Your task to perform on an android device: Search for bose soundlink on walmart, select the first entry, add it to the cart, then select checkout. Image 0: 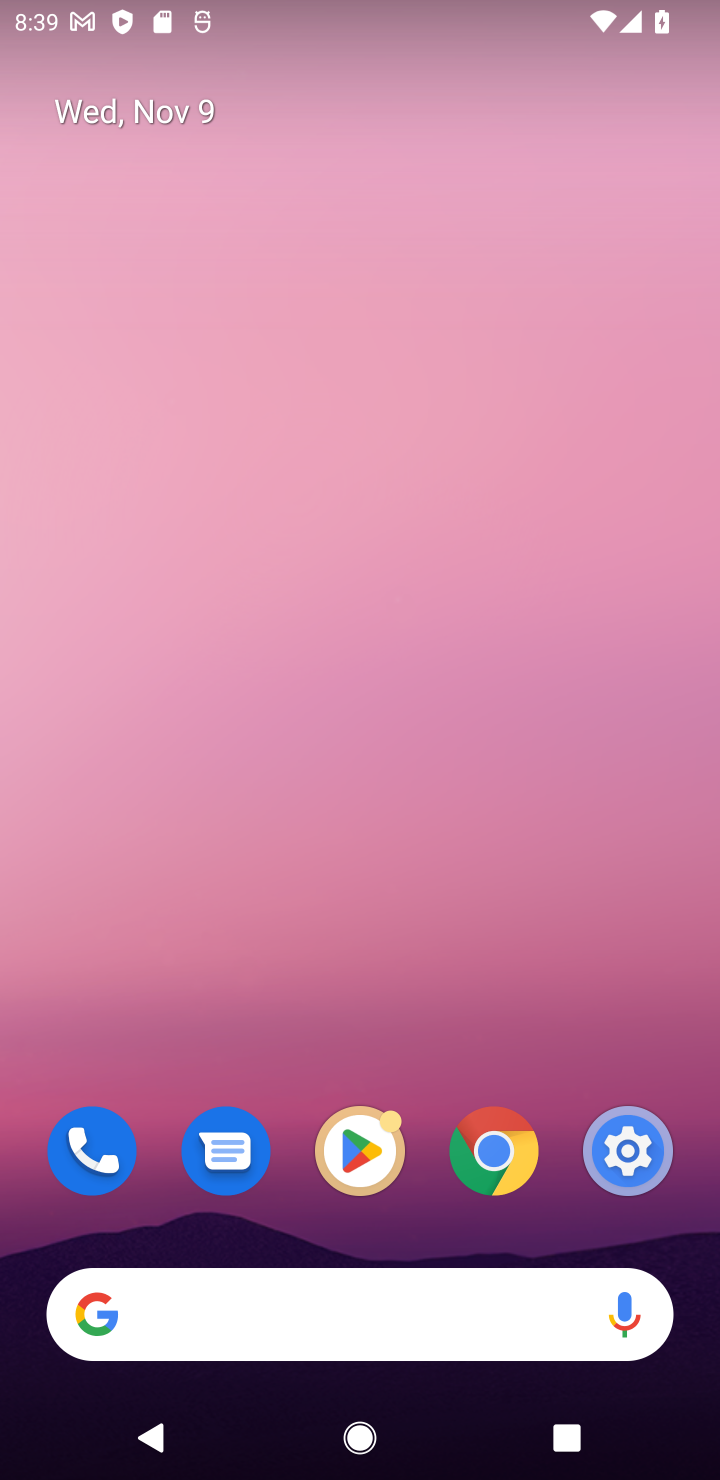
Step 0: click (493, 1146)
Your task to perform on an android device: Search for bose soundlink on walmart, select the first entry, add it to the cart, then select checkout. Image 1: 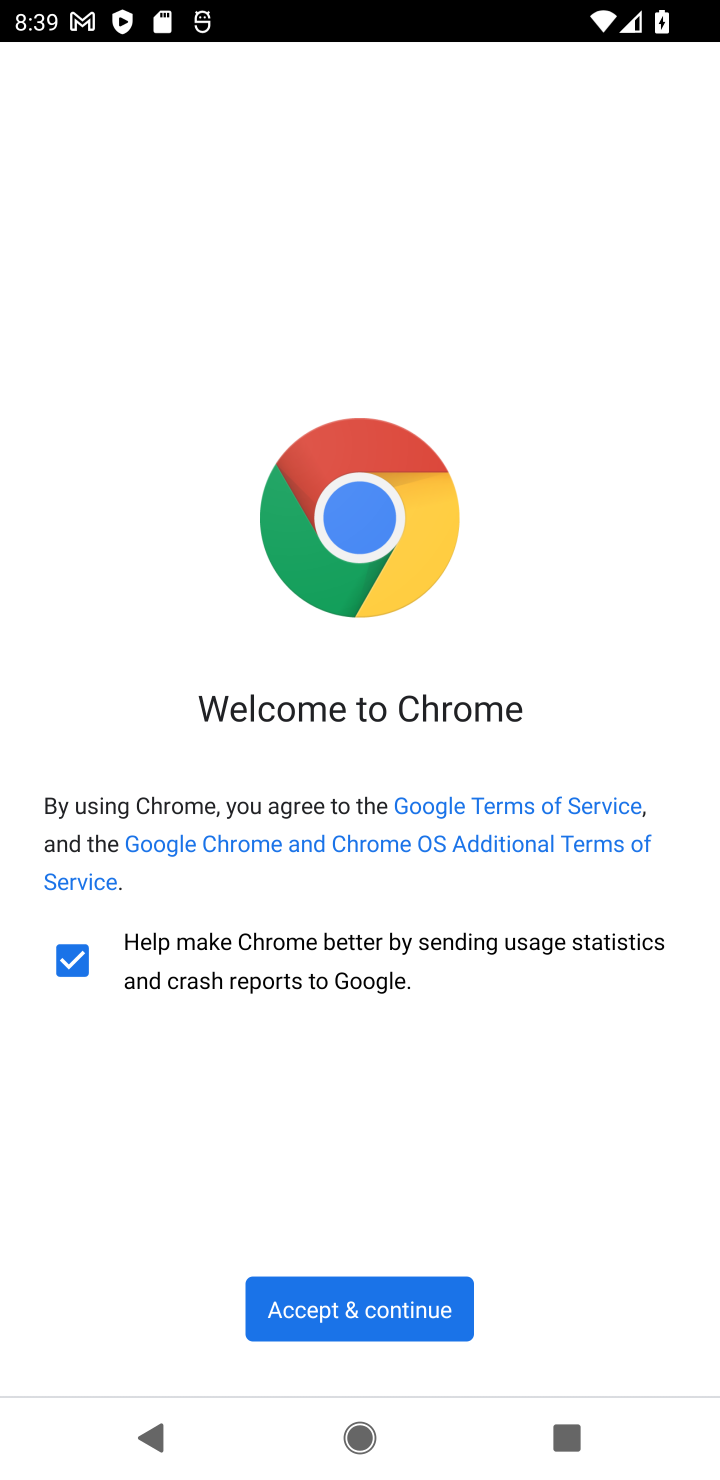
Step 1: click (397, 1328)
Your task to perform on an android device: Search for bose soundlink on walmart, select the first entry, add it to the cart, then select checkout. Image 2: 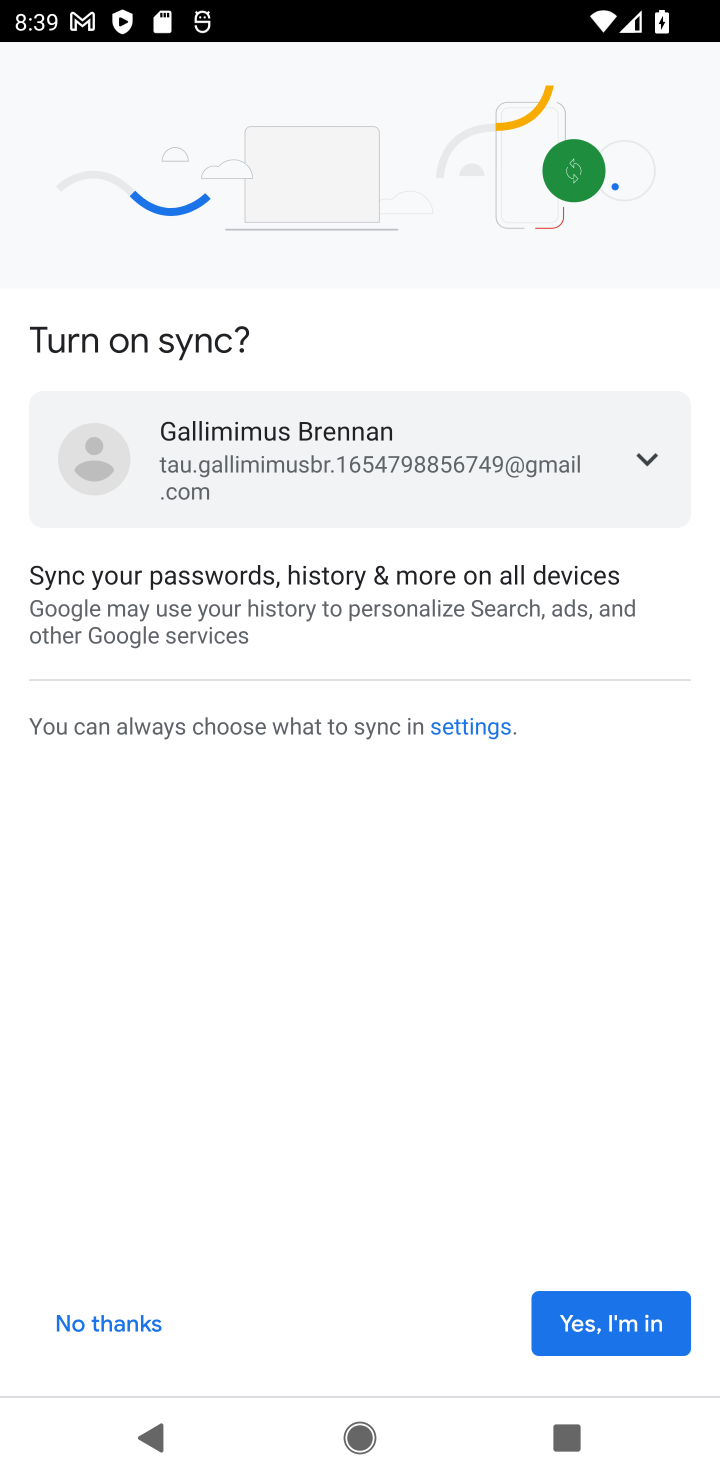
Step 2: click (113, 1329)
Your task to perform on an android device: Search for bose soundlink on walmart, select the first entry, add it to the cart, then select checkout. Image 3: 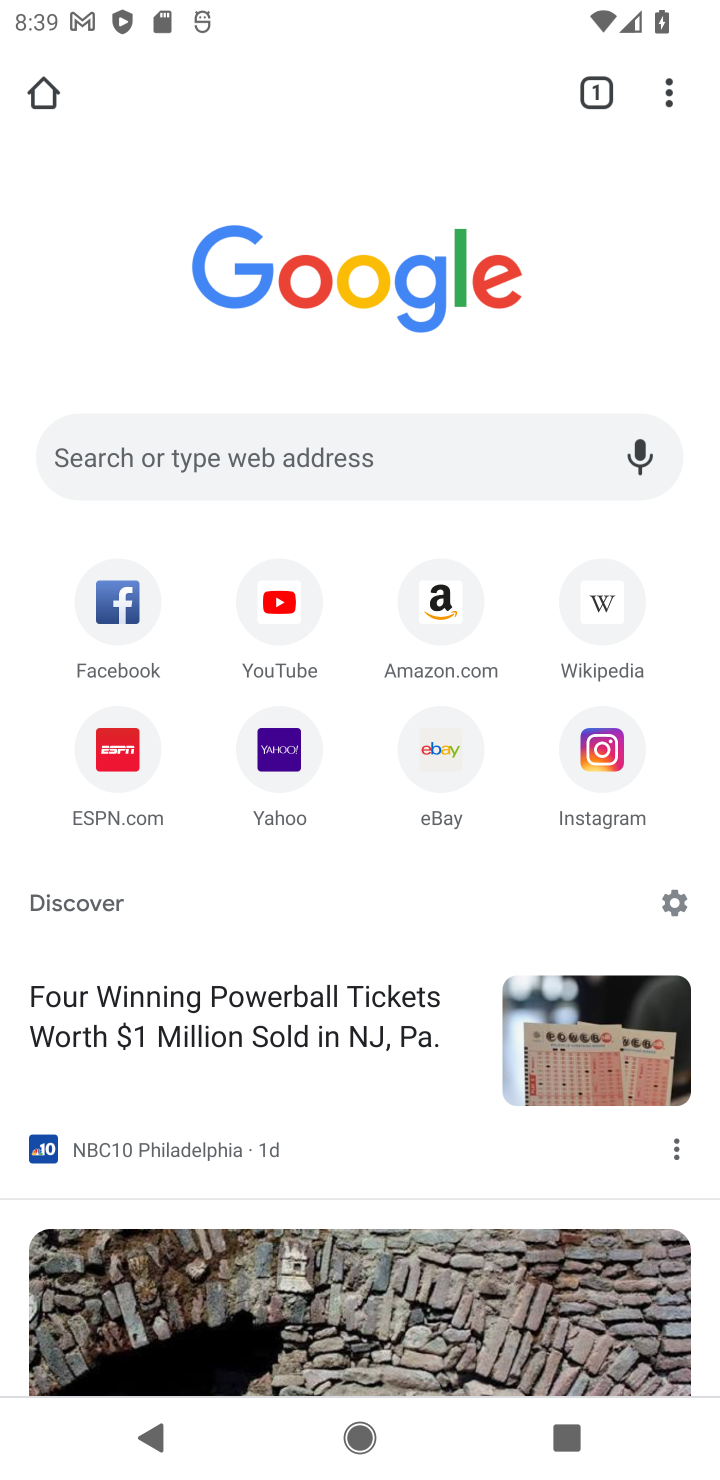
Step 3: click (331, 469)
Your task to perform on an android device: Search for bose soundlink on walmart, select the first entry, add it to the cart, then select checkout. Image 4: 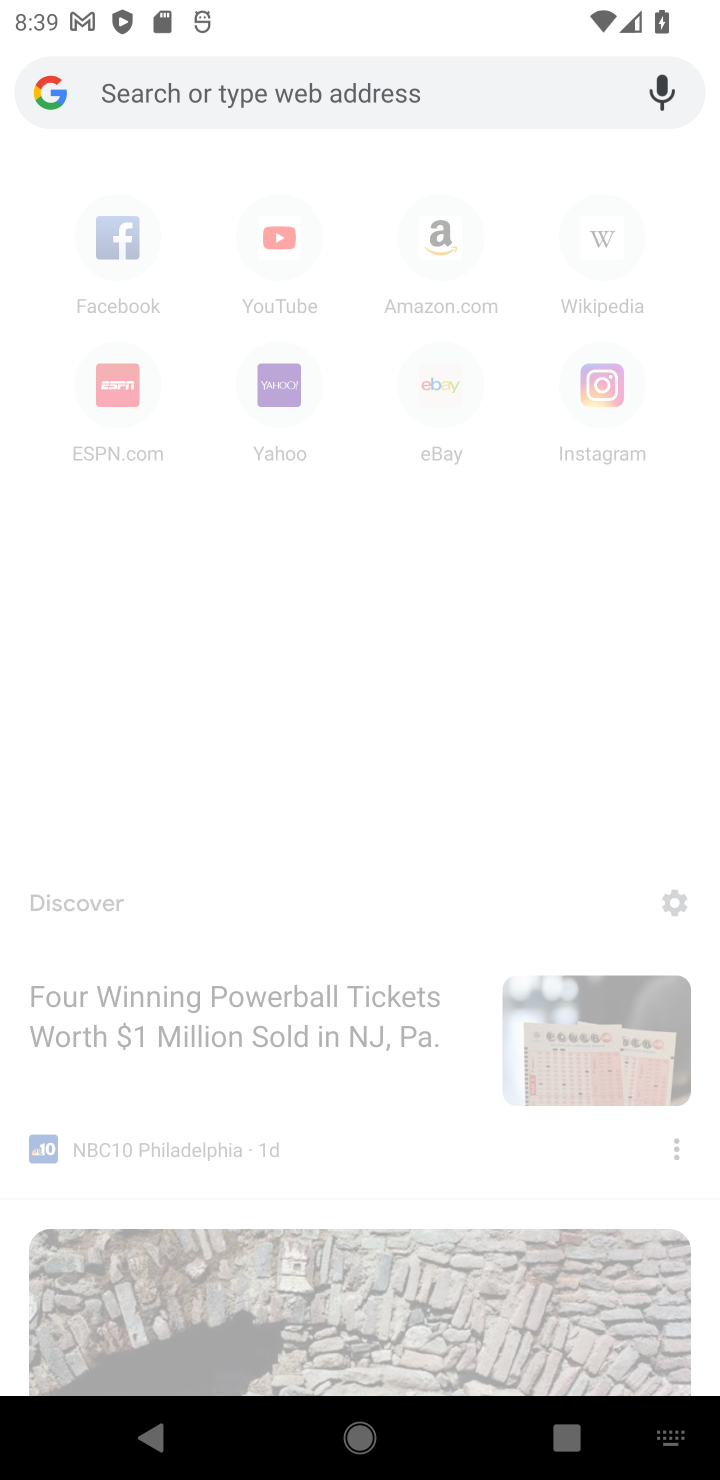
Step 4: type "walmart"
Your task to perform on an android device: Search for bose soundlink on walmart, select the first entry, add it to the cart, then select checkout. Image 5: 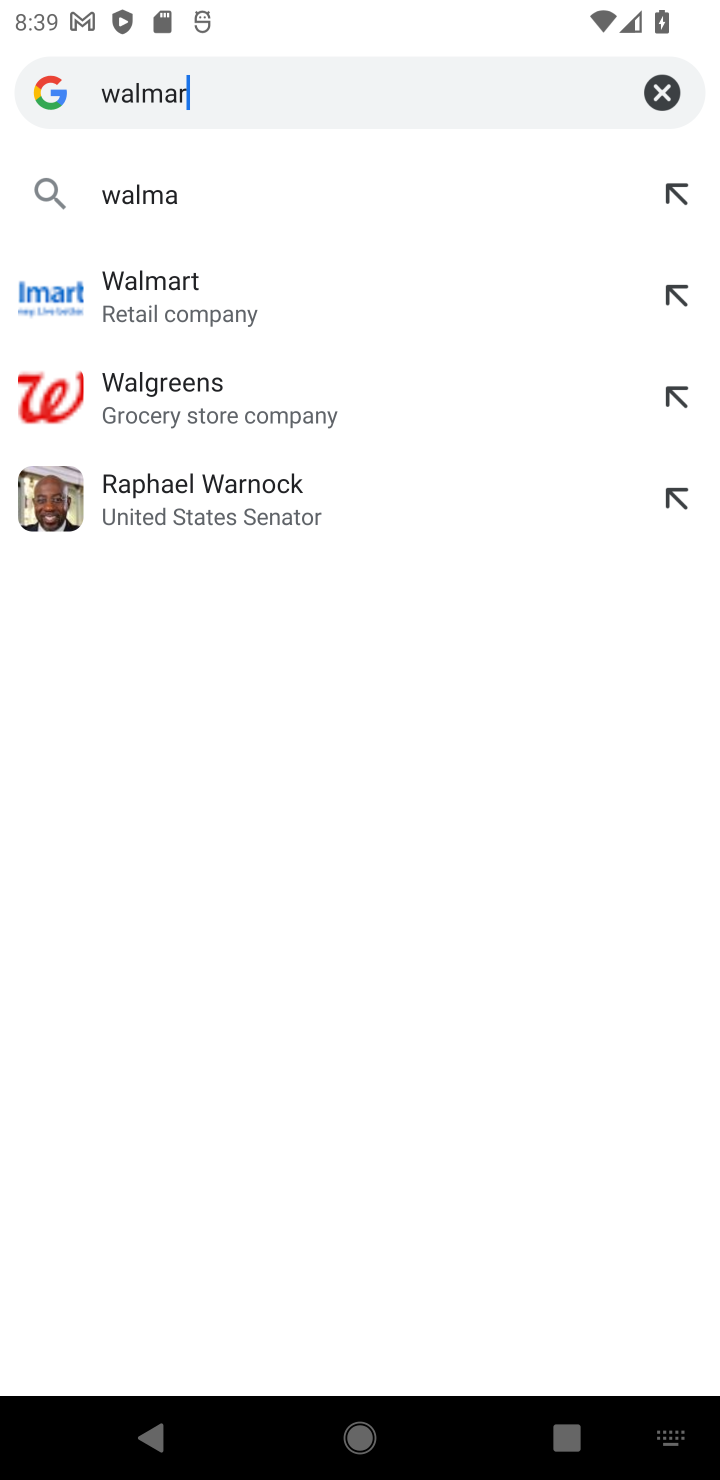
Step 5: press enter
Your task to perform on an android device: Search for bose soundlink on walmart, select the first entry, add it to the cart, then select checkout. Image 6: 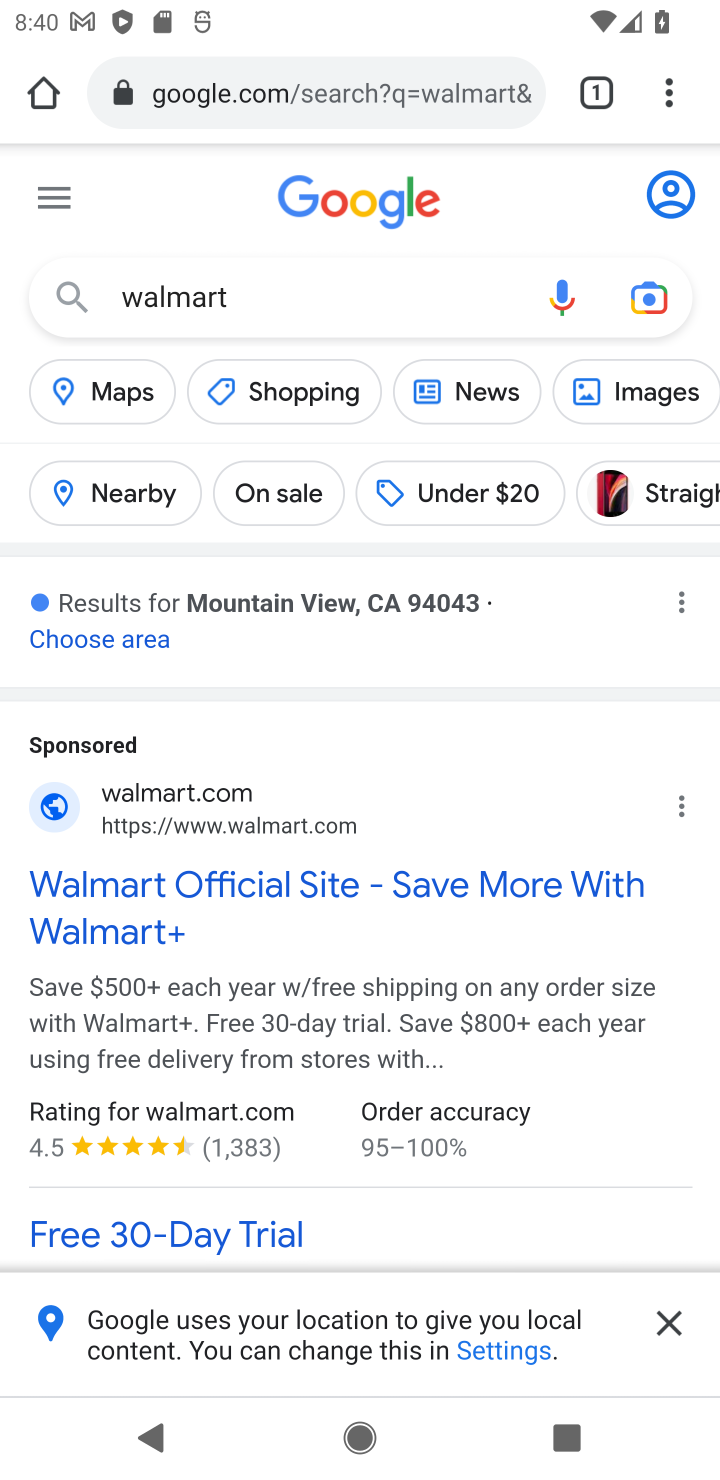
Step 6: click (142, 889)
Your task to perform on an android device: Search for bose soundlink on walmart, select the first entry, add it to the cart, then select checkout. Image 7: 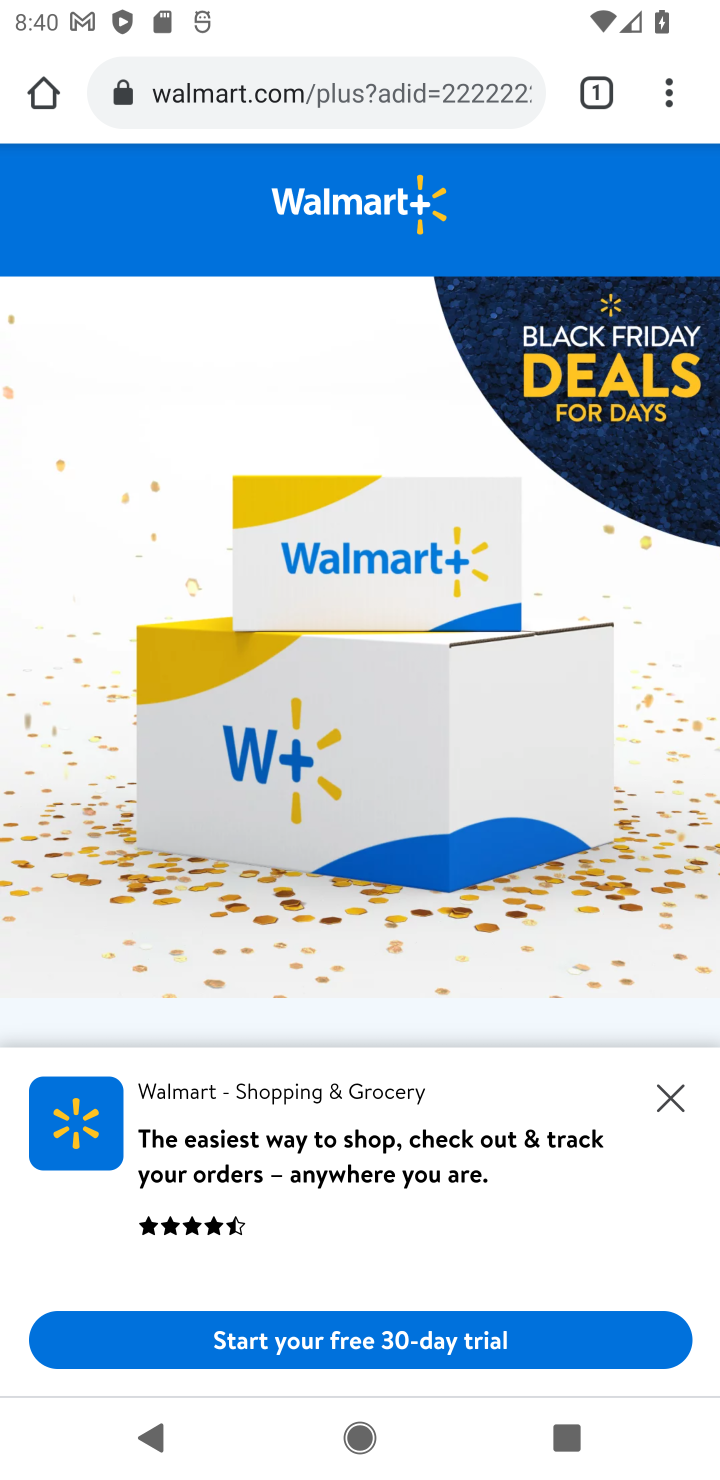
Step 7: click (664, 1094)
Your task to perform on an android device: Search for bose soundlink on walmart, select the first entry, add it to the cart, then select checkout. Image 8: 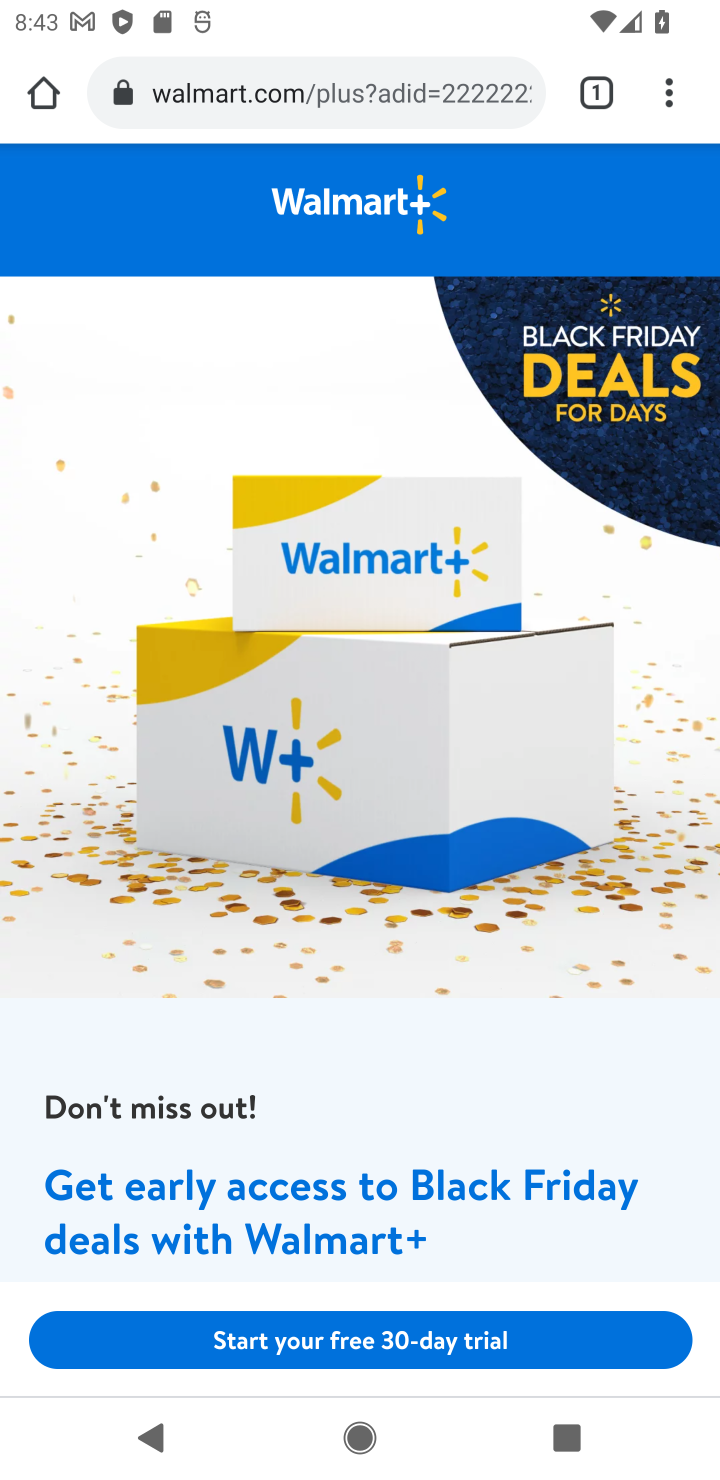
Step 8: click (353, 213)
Your task to perform on an android device: Search for bose soundlink on walmart, select the first entry, add it to the cart, then select checkout. Image 9: 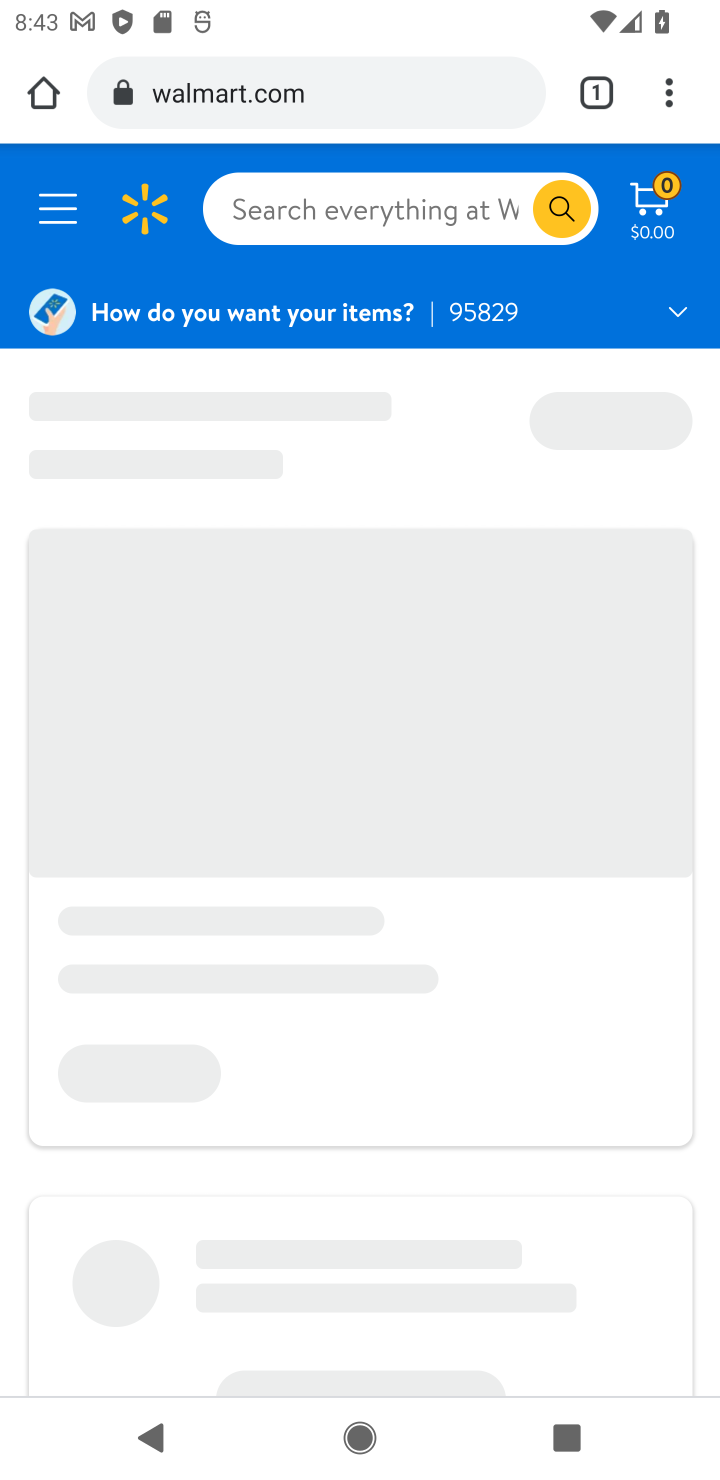
Step 9: click (382, 202)
Your task to perform on an android device: Search for bose soundlink on walmart, select the first entry, add it to the cart, then select checkout. Image 10: 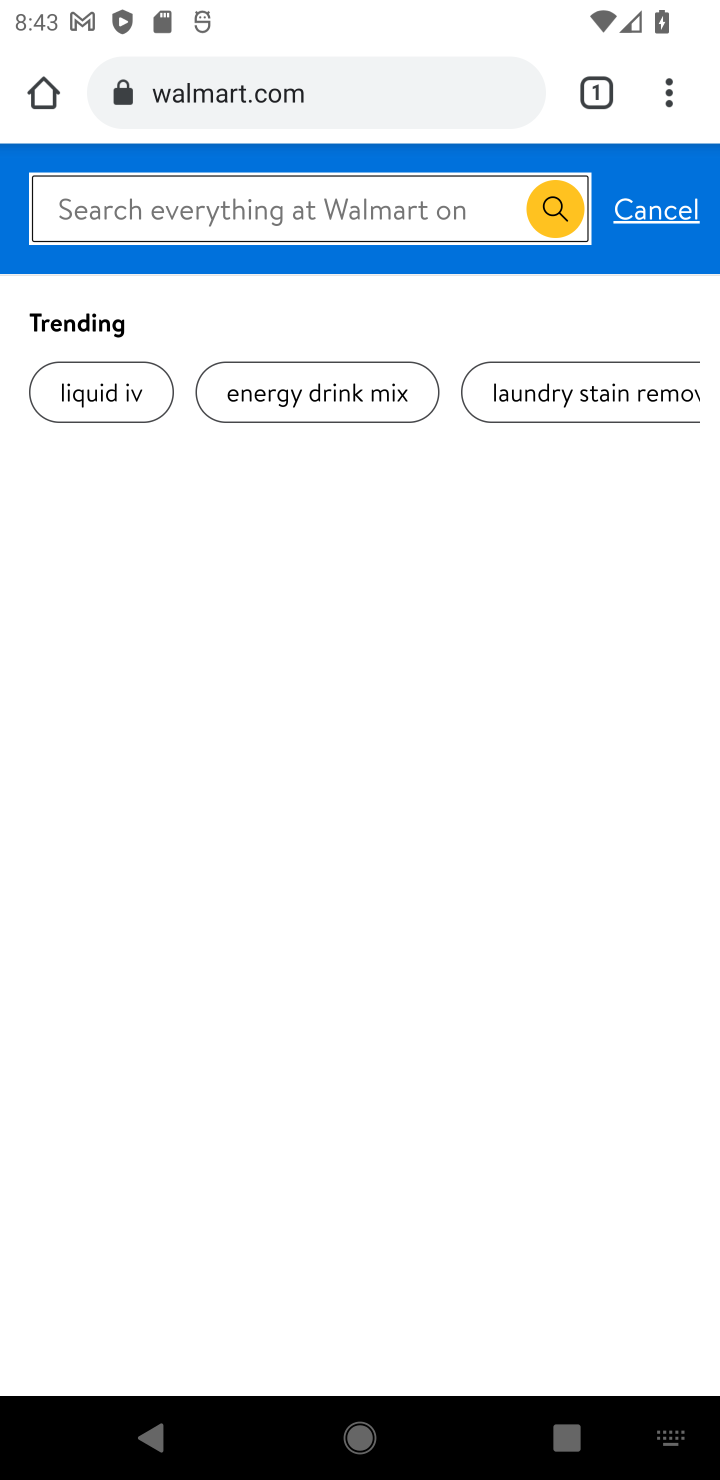
Step 10: type "bose soundlink"
Your task to perform on an android device: Search for bose soundlink on walmart, select the first entry, add it to the cart, then select checkout. Image 11: 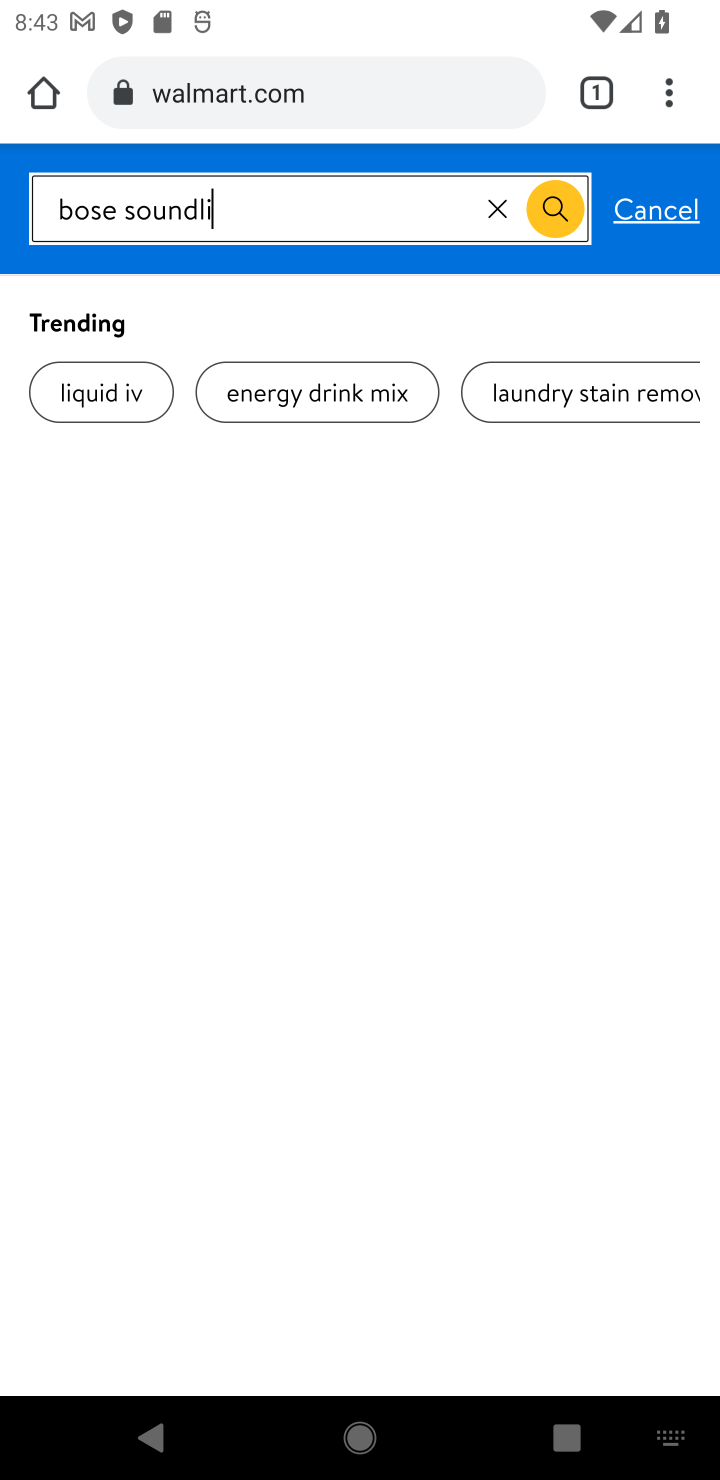
Step 11: press enter
Your task to perform on an android device: Search for bose soundlink on walmart, select the first entry, add it to the cart, then select checkout. Image 12: 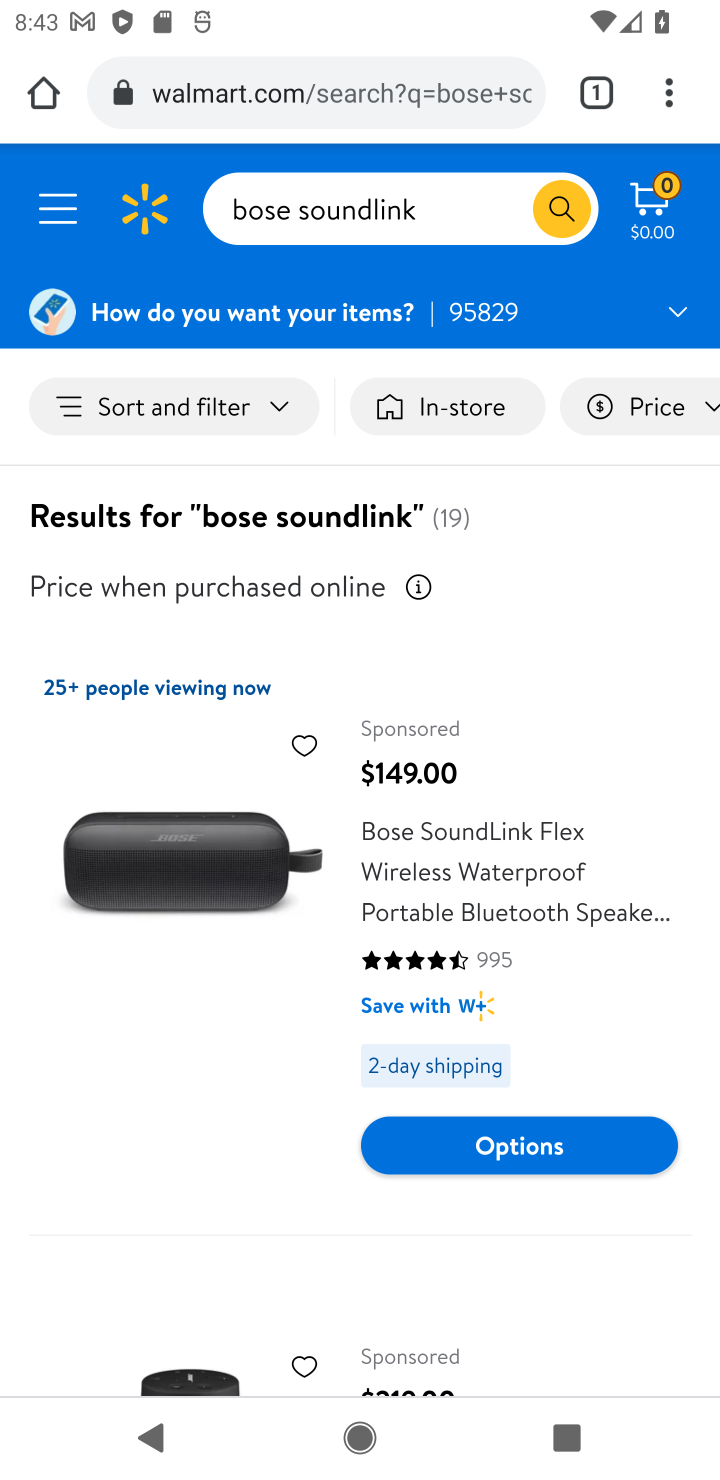
Step 12: click (496, 1160)
Your task to perform on an android device: Search for bose soundlink on walmart, select the first entry, add it to the cart, then select checkout. Image 13: 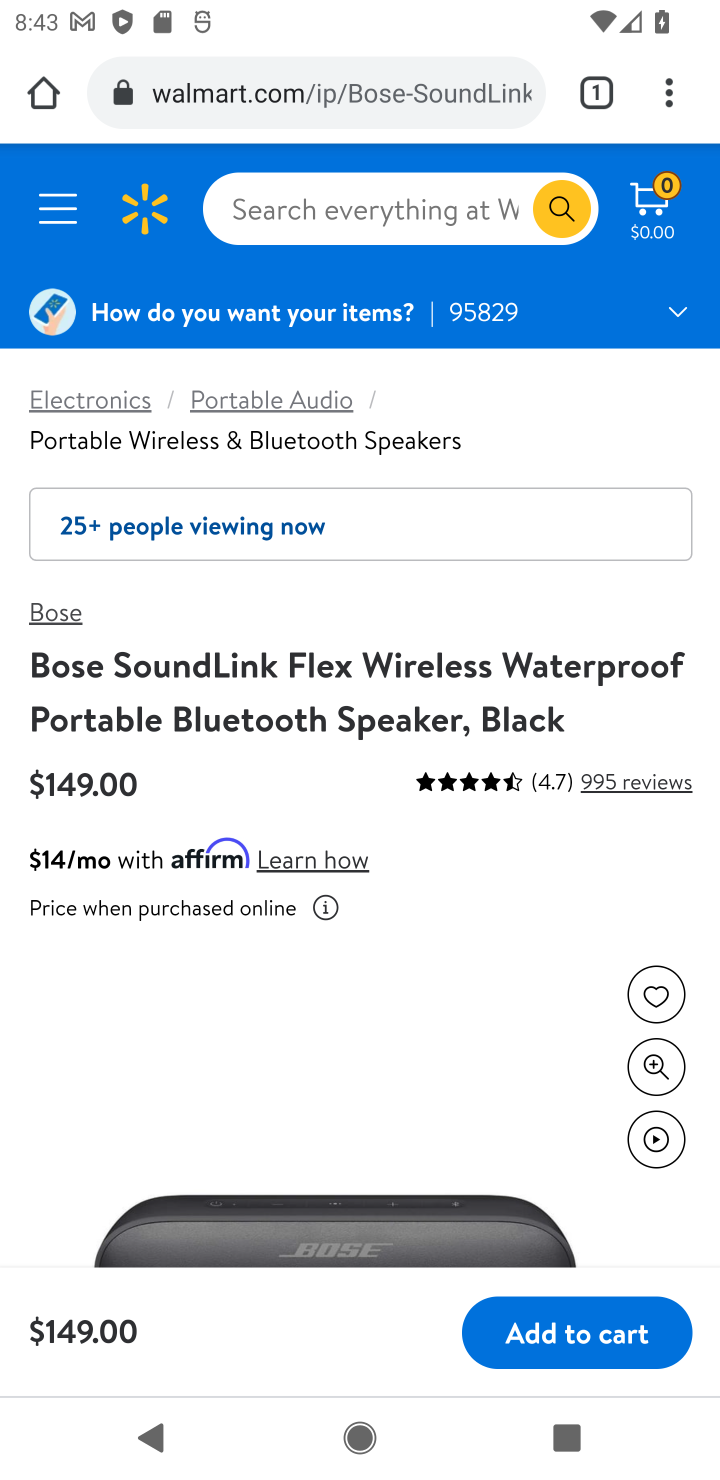
Step 13: click (538, 1340)
Your task to perform on an android device: Search for bose soundlink on walmart, select the first entry, add it to the cart, then select checkout. Image 14: 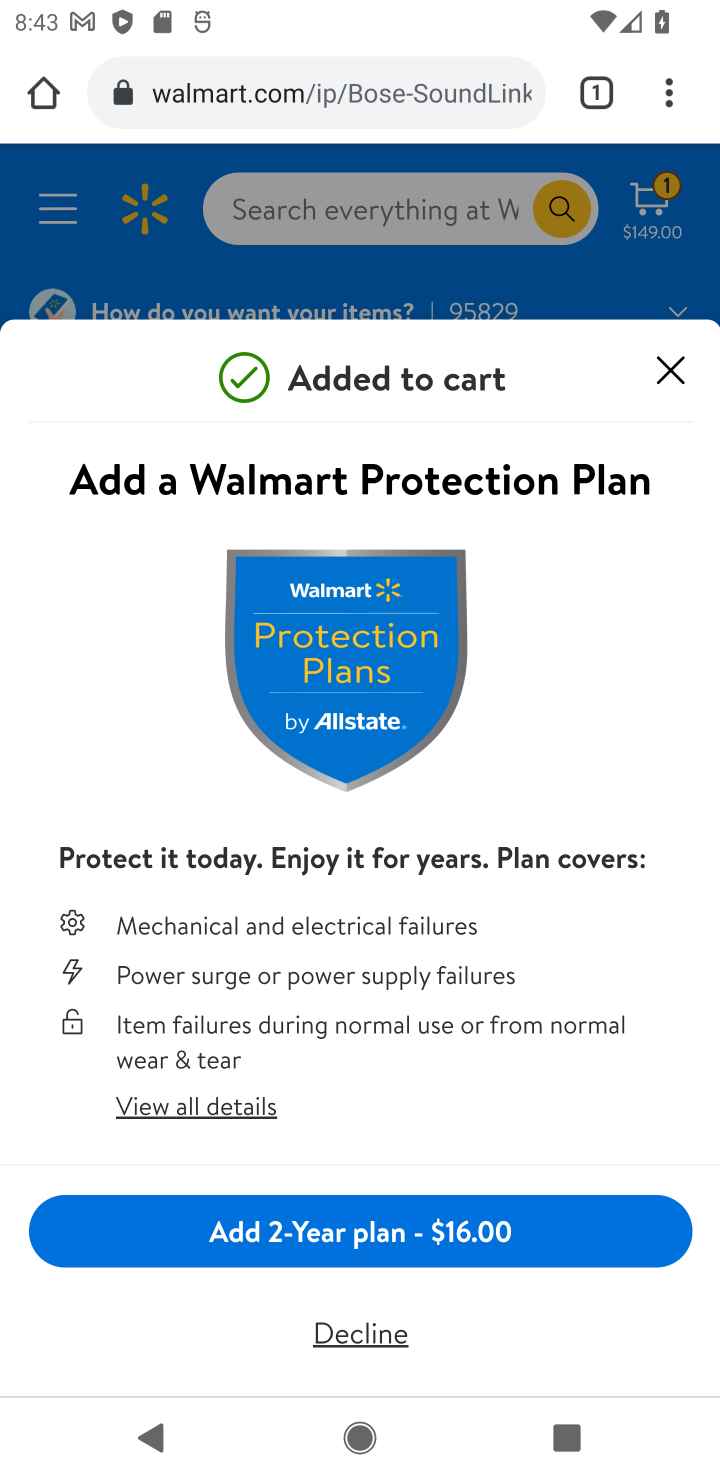
Step 14: click (410, 1237)
Your task to perform on an android device: Search for bose soundlink on walmart, select the first entry, add it to the cart, then select checkout. Image 15: 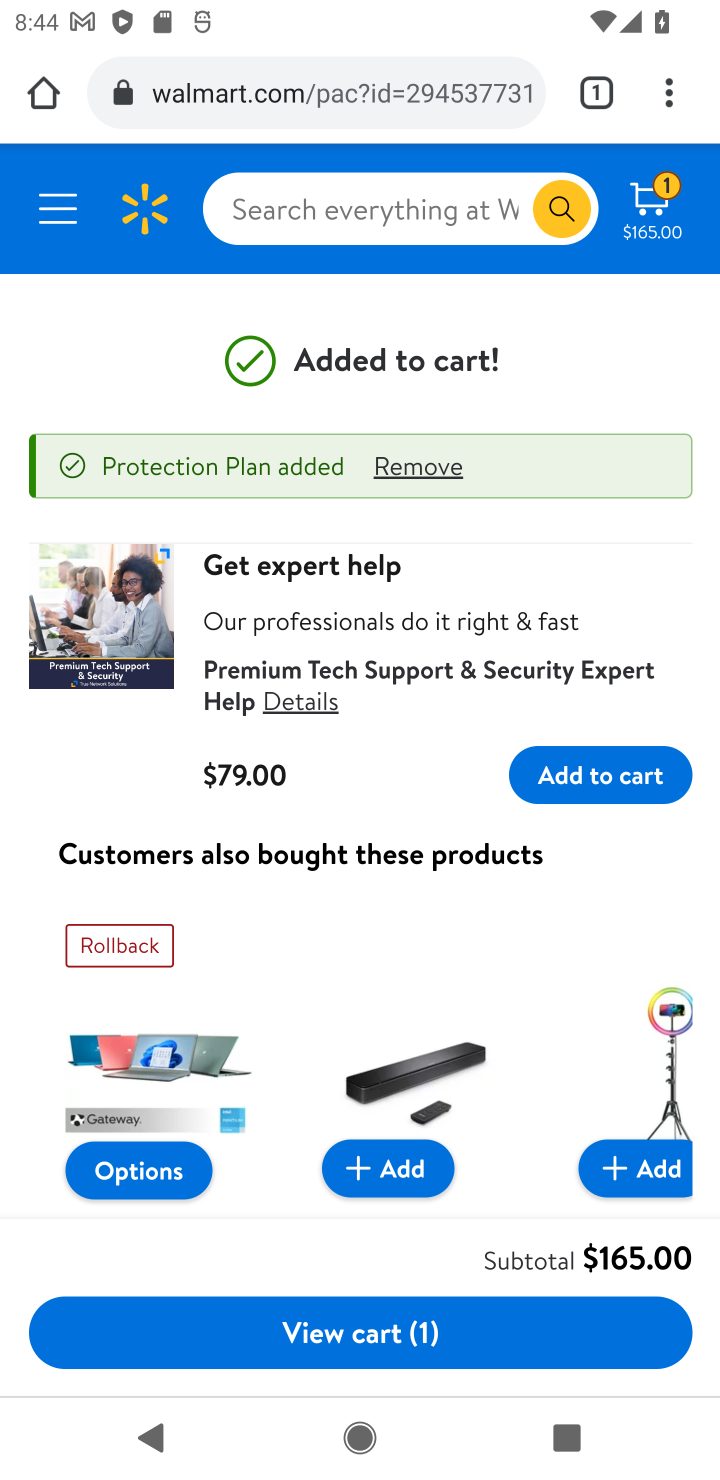
Step 15: click (647, 243)
Your task to perform on an android device: Search for bose soundlink on walmart, select the first entry, add it to the cart, then select checkout. Image 16: 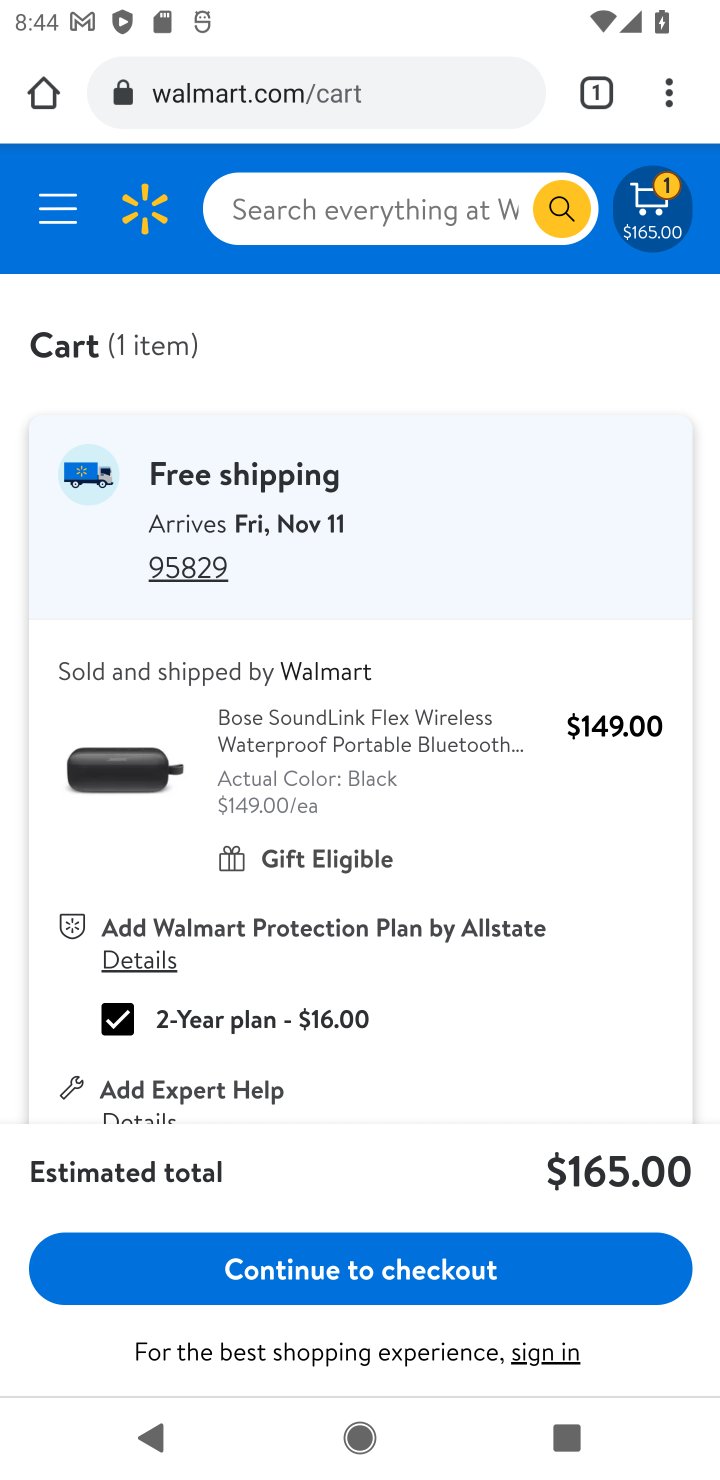
Step 16: click (402, 1288)
Your task to perform on an android device: Search for bose soundlink on walmart, select the first entry, add it to the cart, then select checkout. Image 17: 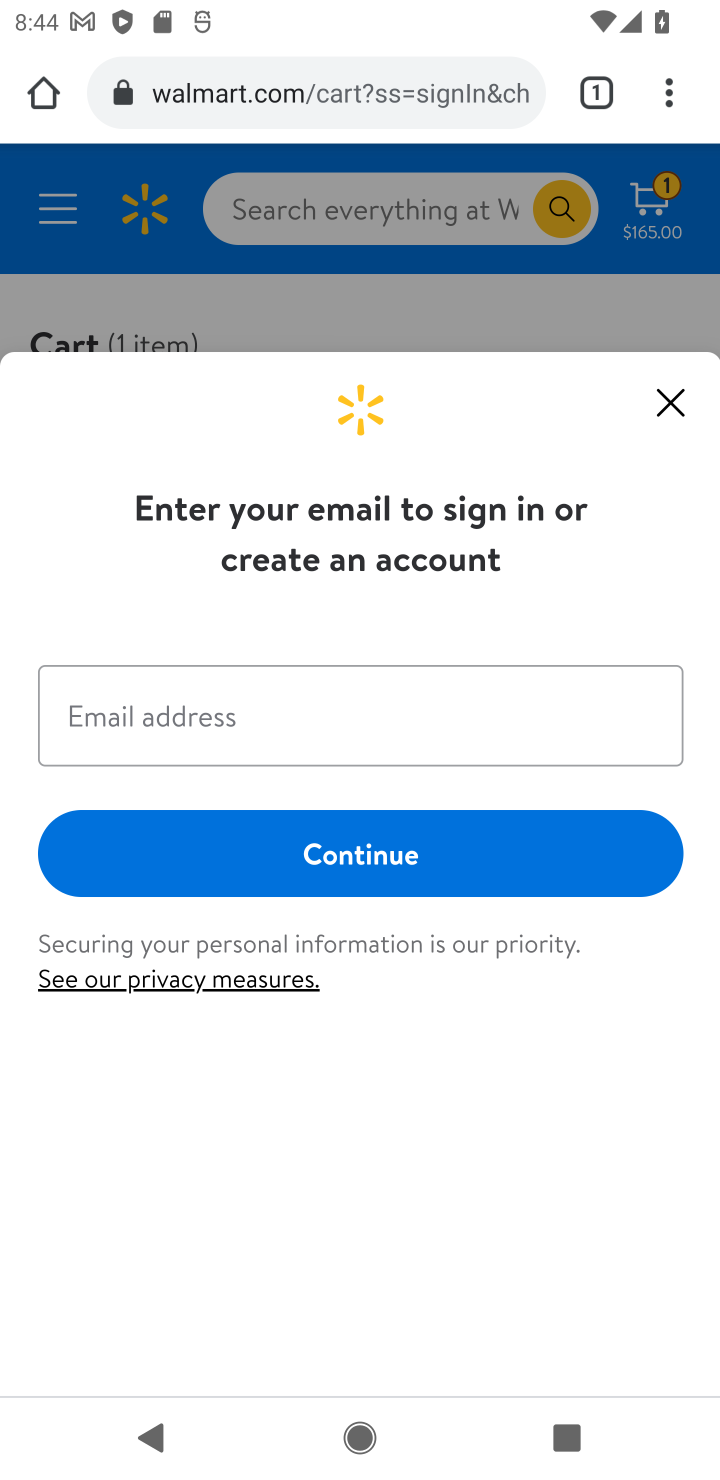
Step 17: task complete